Your task to perform on an android device: Play the last video I watched on Youtube Image 0: 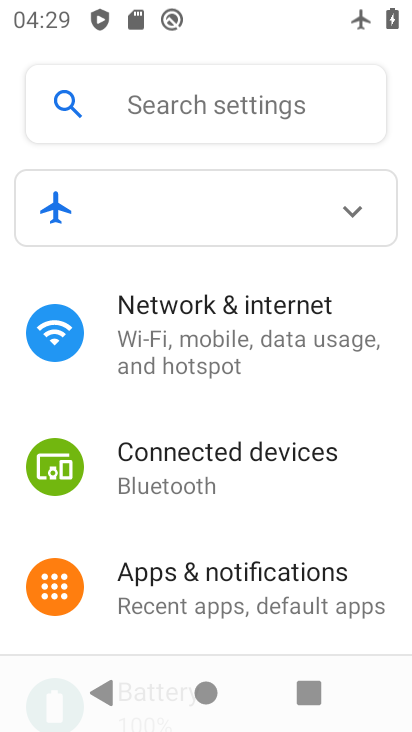
Step 0: press home button
Your task to perform on an android device: Play the last video I watched on Youtube Image 1: 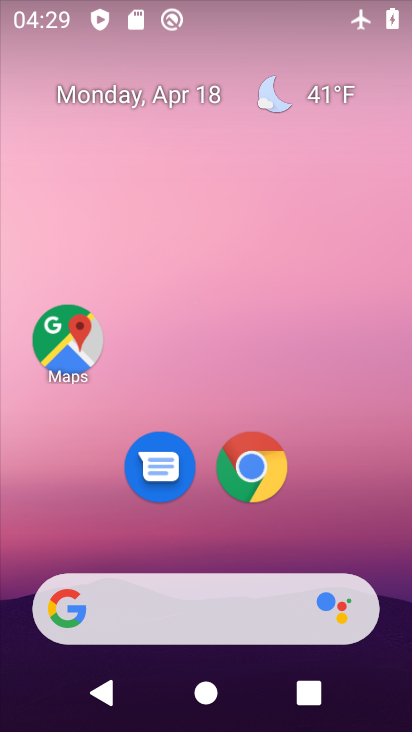
Step 1: drag from (185, 538) to (186, 188)
Your task to perform on an android device: Play the last video I watched on Youtube Image 2: 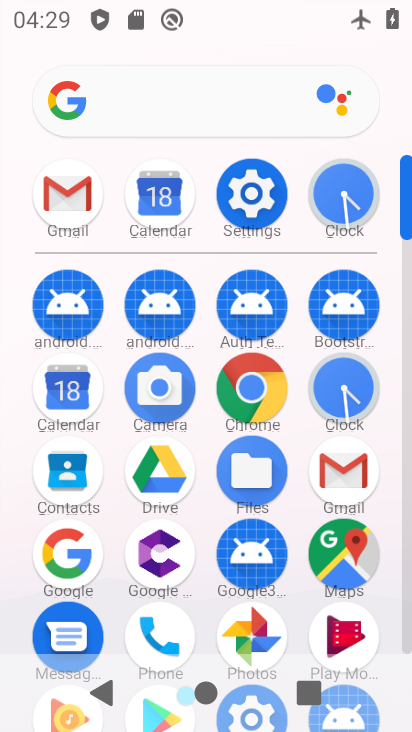
Step 2: drag from (201, 475) to (201, 287)
Your task to perform on an android device: Play the last video I watched on Youtube Image 3: 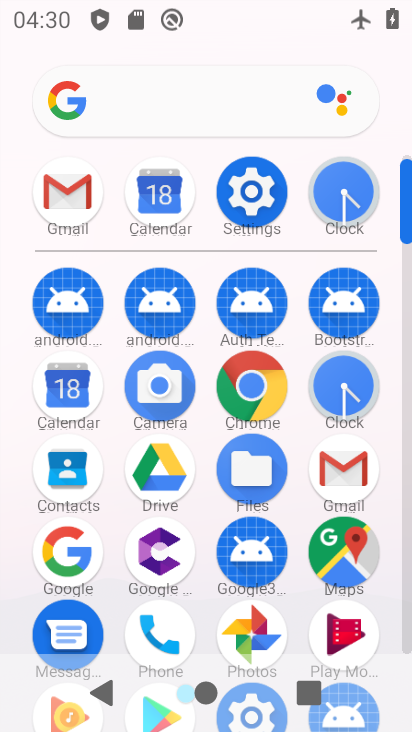
Step 3: drag from (206, 595) to (196, 301)
Your task to perform on an android device: Play the last video I watched on Youtube Image 4: 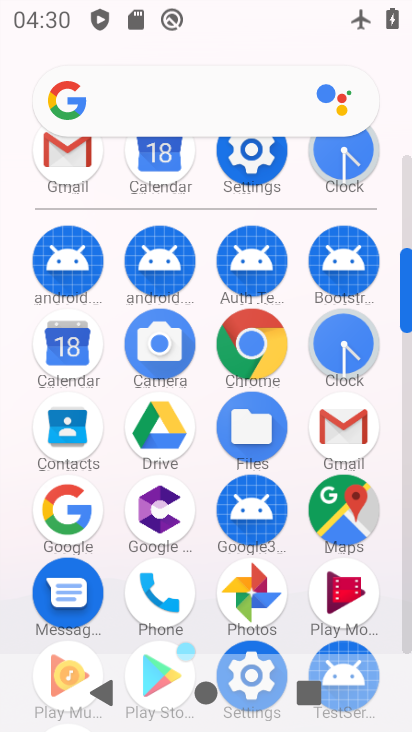
Step 4: drag from (206, 592) to (207, 312)
Your task to perform on an android device: Play the last video I watched on Youtube Image 5: 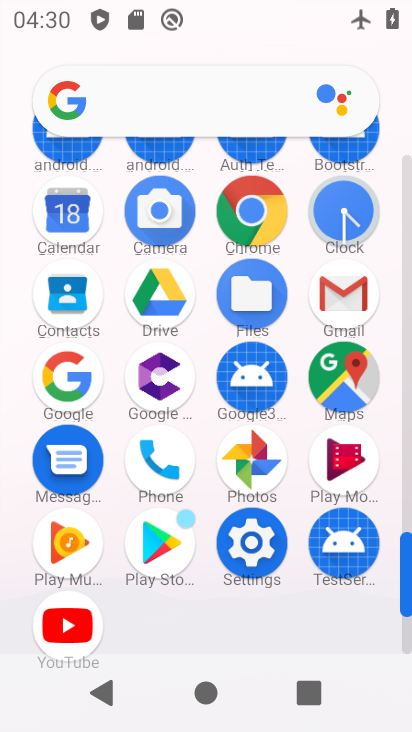
Step 5: click (82, 629)
Your task to perform on an android device: Play the last video I watched on Youtube Image 6: 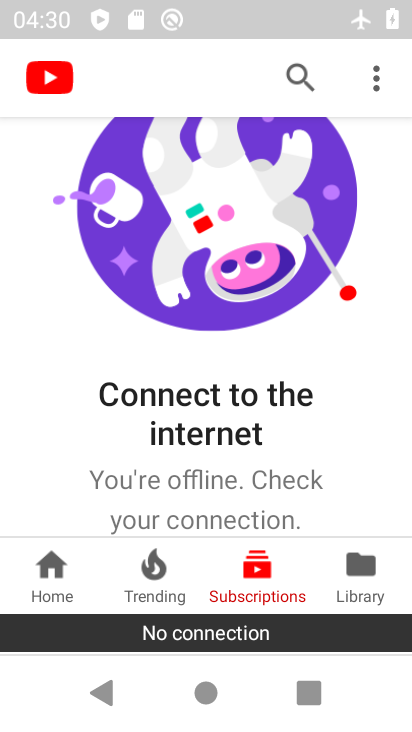
Step 6: click (370, 554)
Your task to perform on an android device: Play the last video I watched on Youtube Image 7: 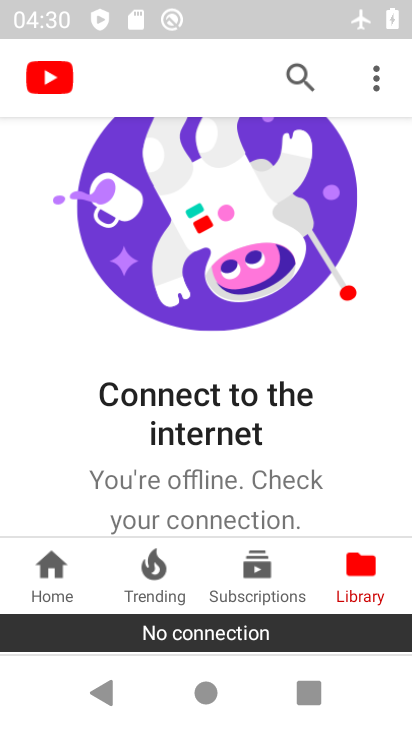
Step 7: click (362, 583)
Your task to perform on an android device: Play the last video I watched on Youtube Image 8: 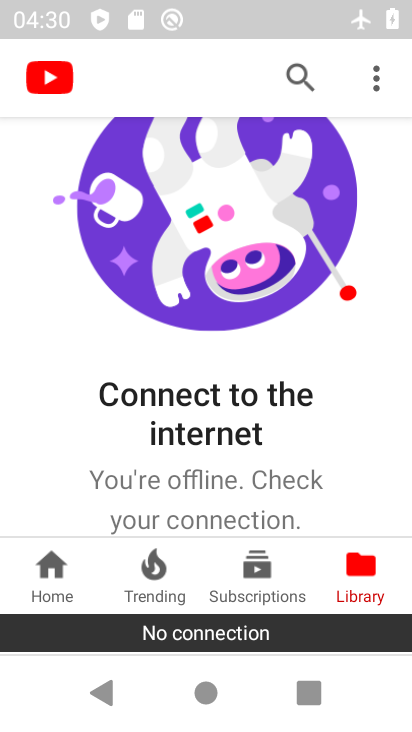
Step 8: task complete